Your task to perform on an android device: check out phone information Image 0: 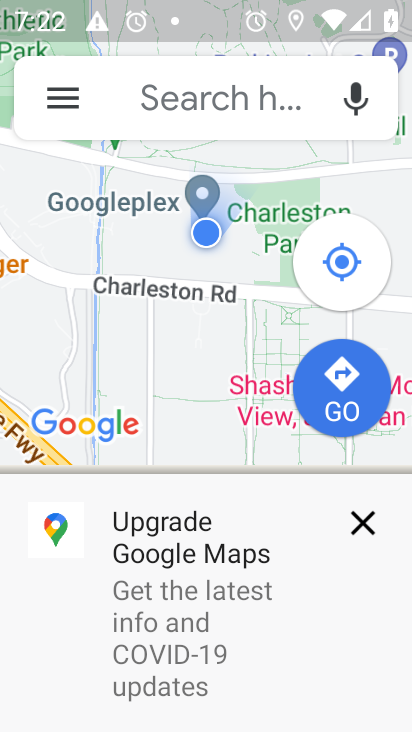
Step 0: press home button
Your task to perform on an android device: check out phone information Image 1: 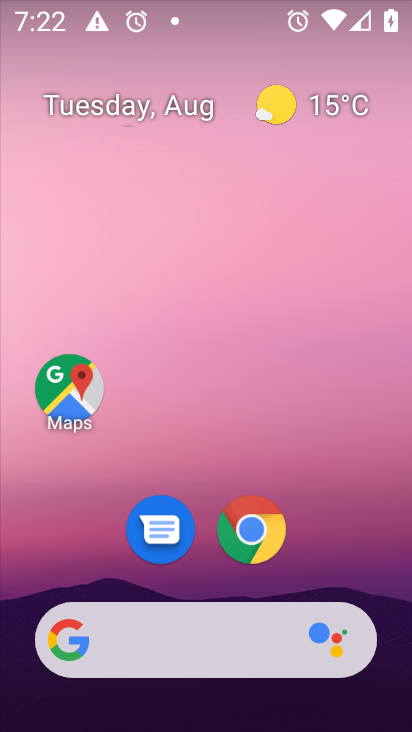
Step 1: drag from (215, 573) to (309, 65)
Your task to perform on an android device: check out phone information Image 2: 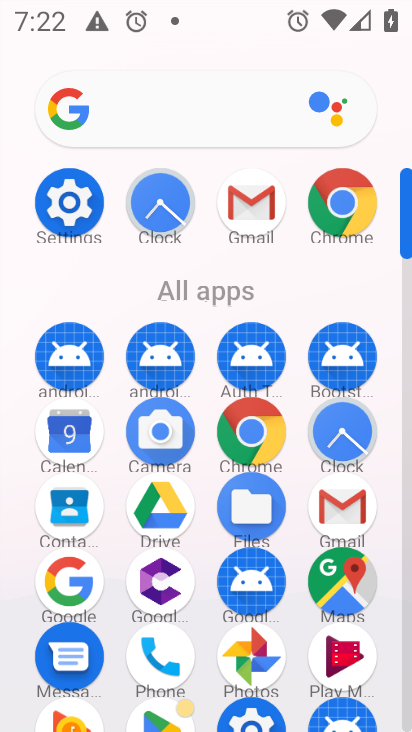
Step 2: click (57, 202)
Your task to perform on an android device: check out phone information Image 3: 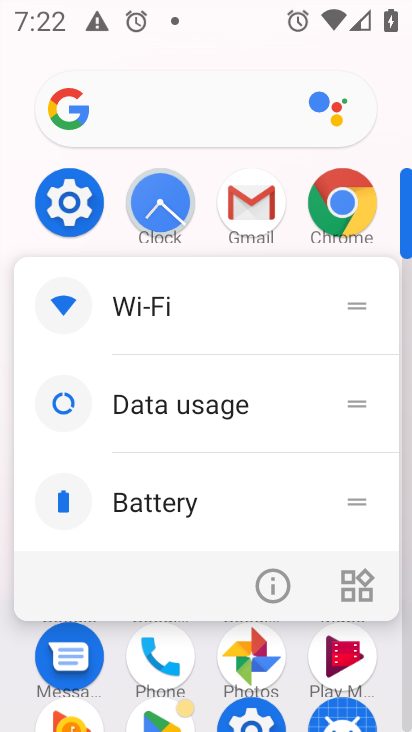
Step 3: click (71, 203)
Your task to perform on an android device: check out phone information Image 4: 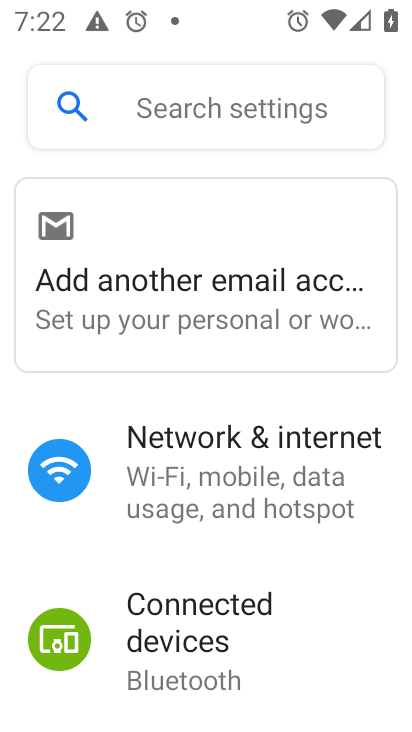
Step 4: drag from (323, 668) to (348, 18)
Your task to perform on an android device: check out phone information Image 5: 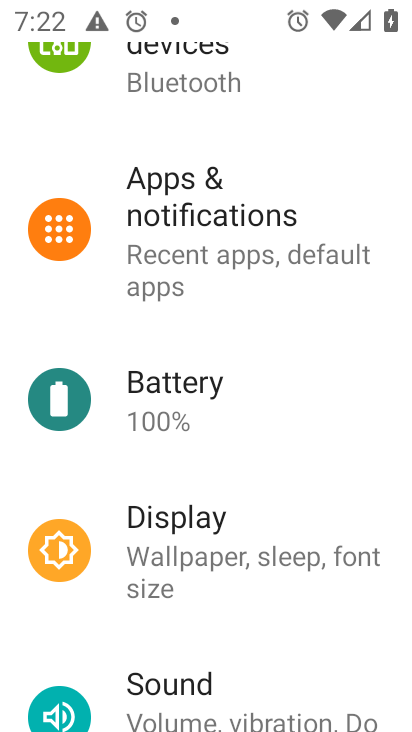
Step 5: drag from (339, 631) to (344, 136)
Your task to perform on an android device: check out phone information Image 6: 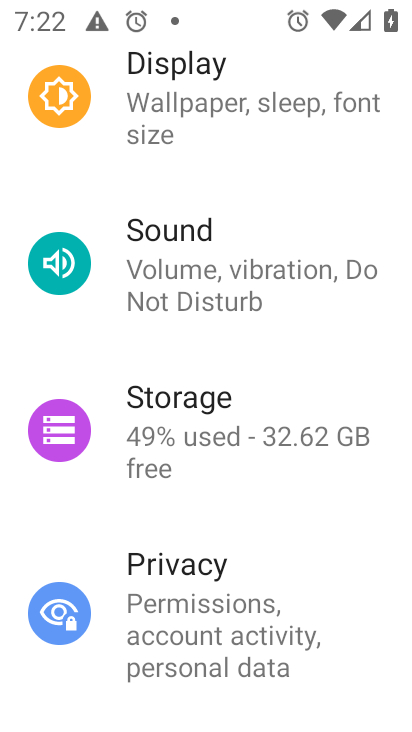
Step 6: drag from (340, 632) to (366, 144)
Your task to perform on an android device: check out phone information Image 7: 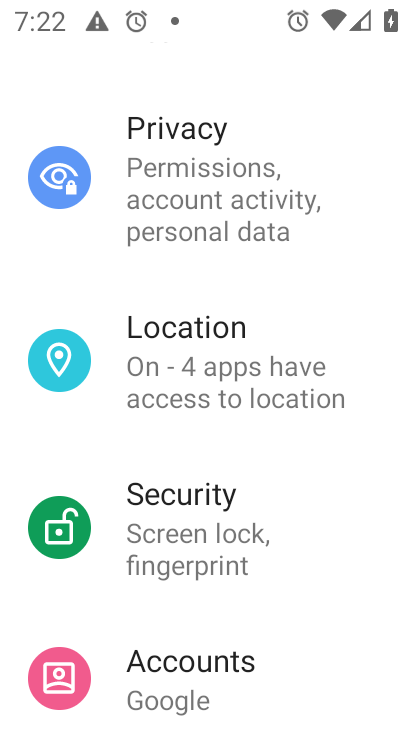
Step 7: drag from (310, 662) to (332, 165)
Your task to perform on an android device: check out phone information Image 8: 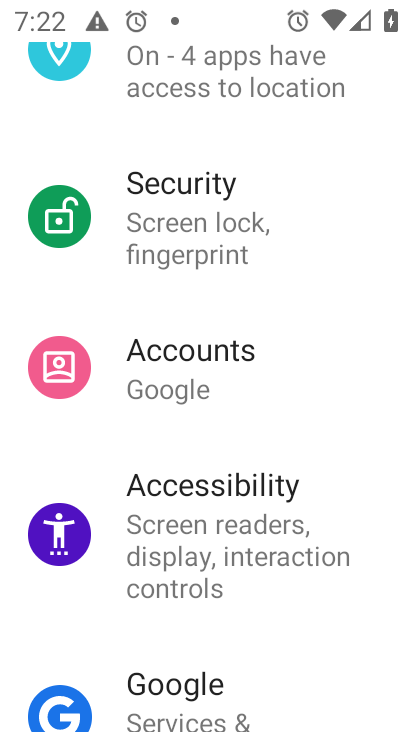
Step 8: drag from (324, 643) to (314, 58)
Your task to perform on an android device: check out phone information Image 9: 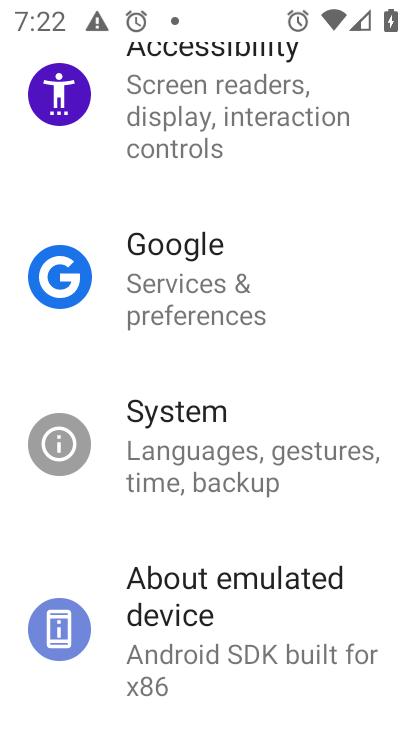
Step 9: drag from (339, 669) to (326, 91)
Your task to perform on an android device: check out phone information Image 10: 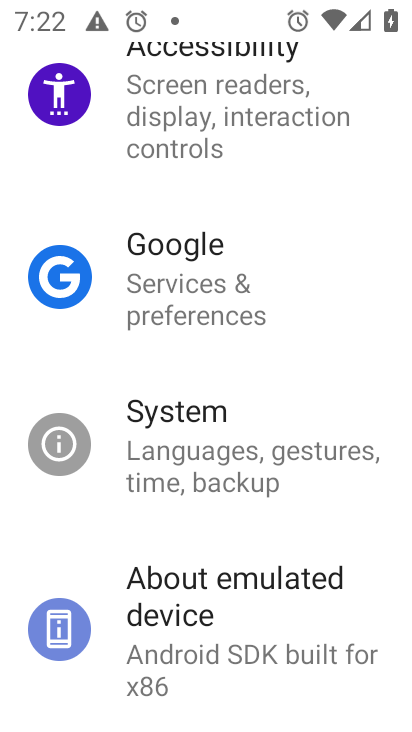
Step 10: click (214, 621)
Your task to perform on an android device: check out phone information Image 11: 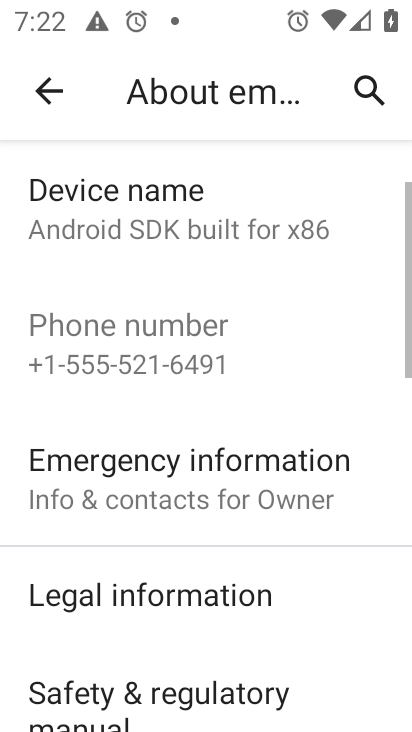
Step 11: task complete